Your task to perform on an android device: Open calendar and show me the first week of next month Image 0: 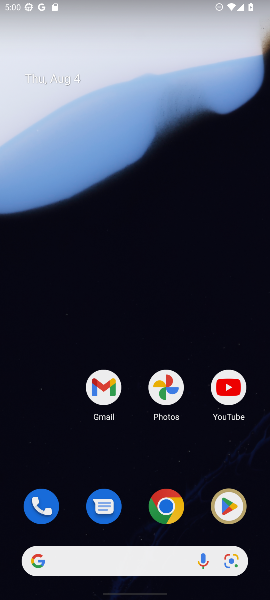
Step 0: drag from (164, 73) to (157, 262)
Your task to perform on an android device: Open calendar and show me the first week of next month Image 1: 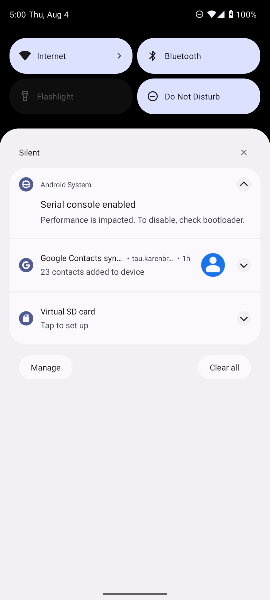
Step 1: drag from (81, 504) to (166, 208)
Your task to perform on an android device: Open calendar and show me the first week of next month Image 2: 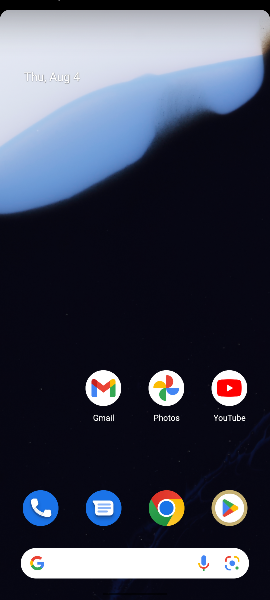
Step 2: drag from (180, 227) to (150, 585)
Your task to perform on an android device: Open calendar and show me the first week of next month Image 3: 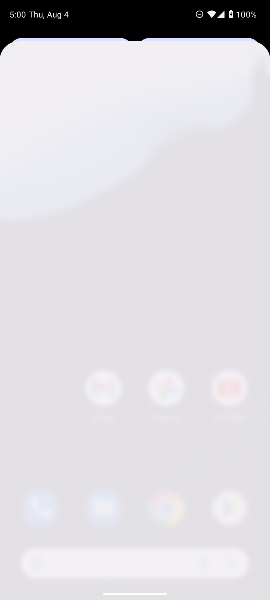
Step 3: press home button
Your task to perform on an android device: Open calendar and show me the first week of next month Image 4: 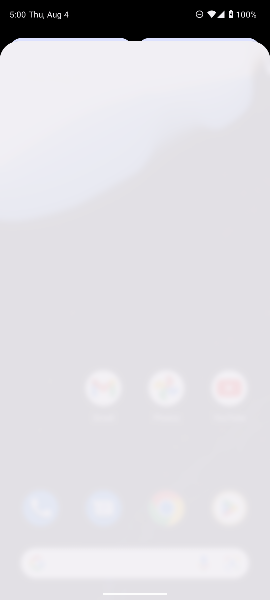
Step 4: click (268, 440)
Your task to perform on an android device: Open calendar and show me the first week of next month Image 5: 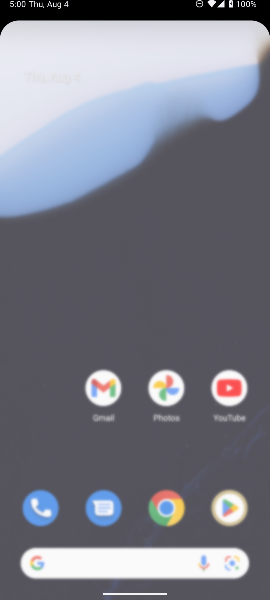
Step 5: drag from (134, 527) to (189, 164)
Your task to perform on an android device: Open calendar and show me the first week of next month Image 6: 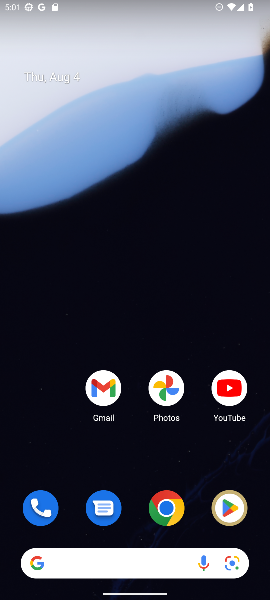
Step 6: drag from (173, 319) to (256, 165)
Your task to perform on an android device: Open calendar and show me the first week of next month Image 7: 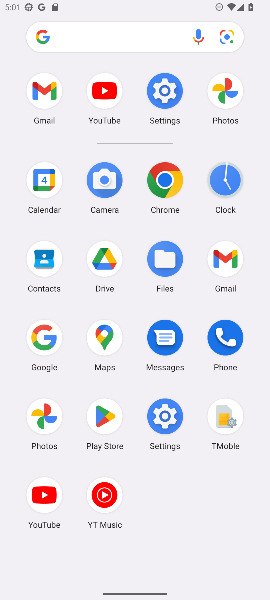
Step 7: click (101, 23)
Your task to perform on an android device: Open calendar and show me the first week of next month Image 8: 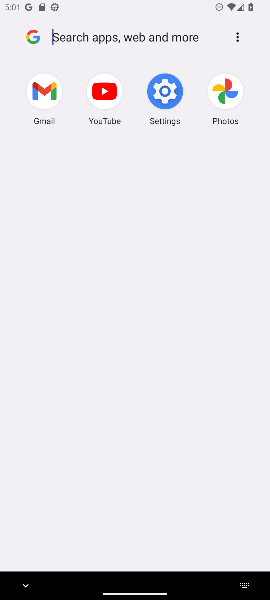
Step 8: drag from (110, 429) to (148, 214)
Your task to perform on an android device: Open calendar and show me the first week of next month Image 9: 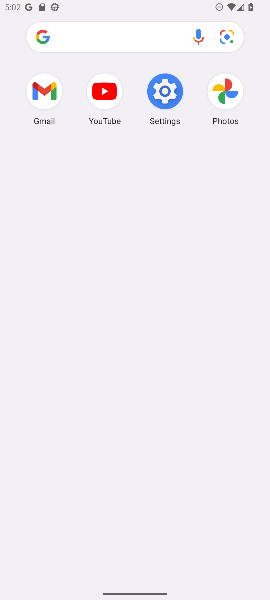
Step 9: press home button
Your task to perform on an android device: Open calendar and show me the first week of next month Image 10: 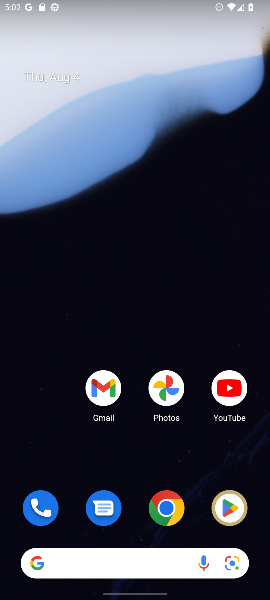
Step 10: drag from (112, 488) to (187, 111)
Your task to perform on an android device: Open calendar and show me the first week of next month Image 11: 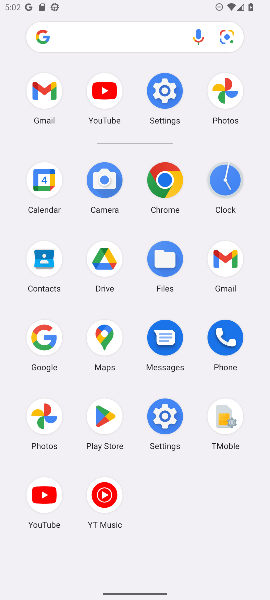
Step 11: click (35, 177)
Your task to perform on an android device: Open calendar and show me the first week of next month Image 12: 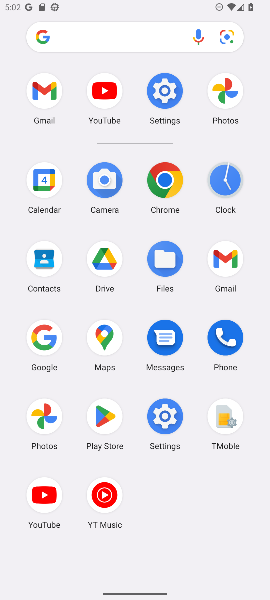
Step 12: click (34, 176)
Your task to perform on an android device: Open calendar and show me the first week of next month Image 13: 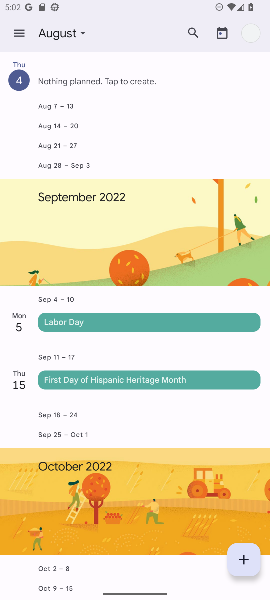
Step 13: click (60, 37)
Your task to perform on an android device: Open calendar and show me the first week of next month Image 14: 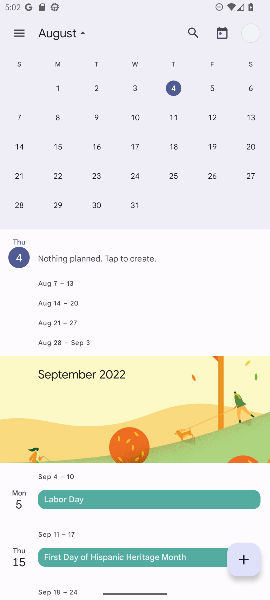
Step 14: drag from (191, 176) to (2, 156)
Your task to perform on an android device: Open calendar and show me the first week of next month Image 15: 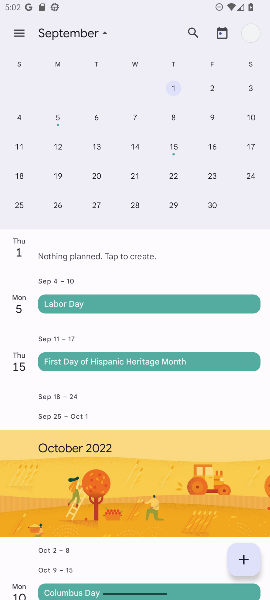
Step 15: click (216, 89)
Your task to perform on an android device: Open calendar and show me the first week of next month Image 16: 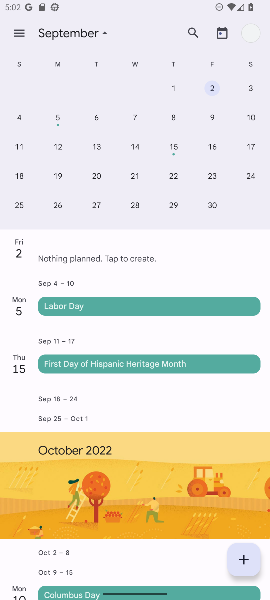
Step 16: task complete